Your task to perform on an android device: Turn on the flashlight Image 0: 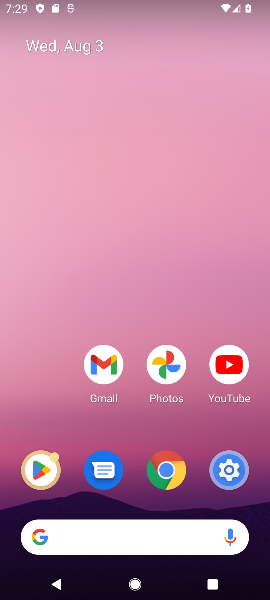
Step 0: drag from (123, 14) to (154, 430)
Your task to perform on an android device: Turn on the flashlight Image 1: 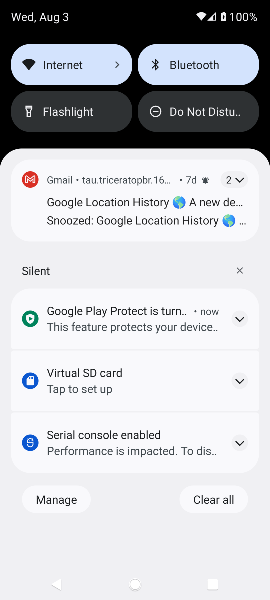
Step 1: click (53, 111)
Your task to perform on an android device: Turn on the flashlight Image 2: 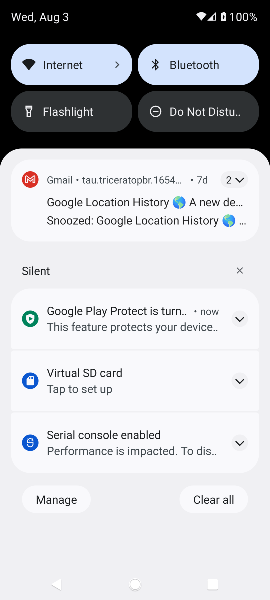
Step 2: click (53, 111)
Your task to perform on an android device: Turn on the flashlight Image 3: 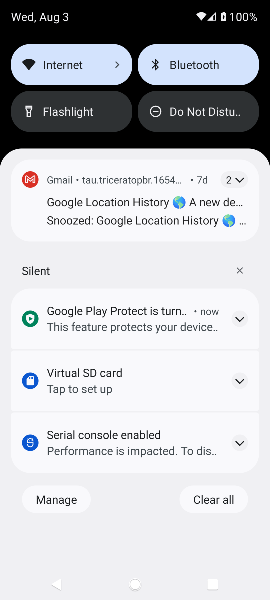
Step 3: task complete